Your task to perform on an android device: Open Yahoo.com Image 0: 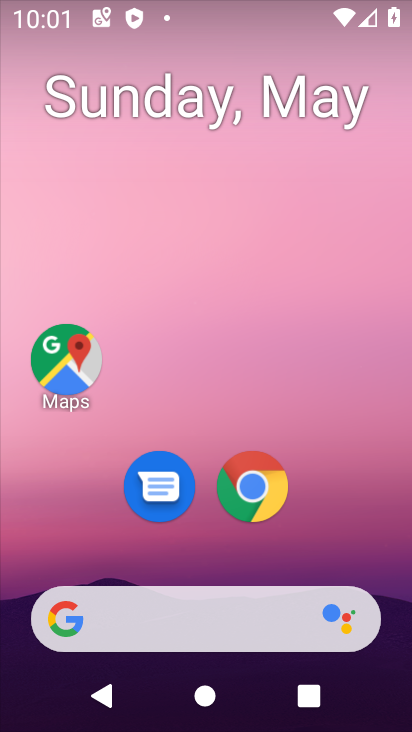
Step 0: click (251, 486)
Your task to perform on an android device: Open Yahoo.com Image 1: 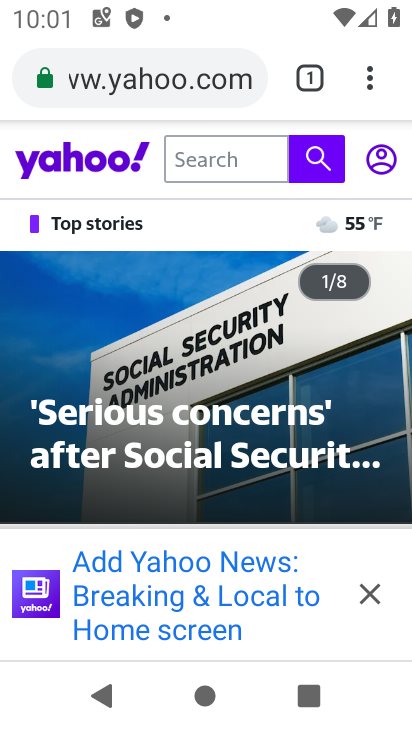
Step 1: click (220, 75)
Your task to perform on an android device: Open Yahoo.com Image 2: 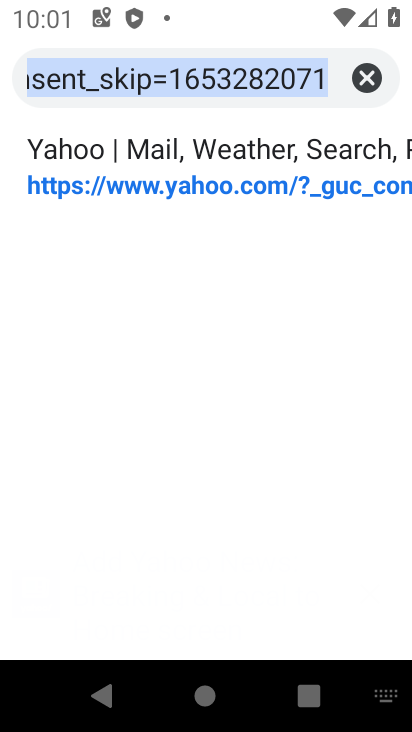
Step 2: click (374, 78)
Your task to perform on an android device: Open Yahoo.com Image 3: 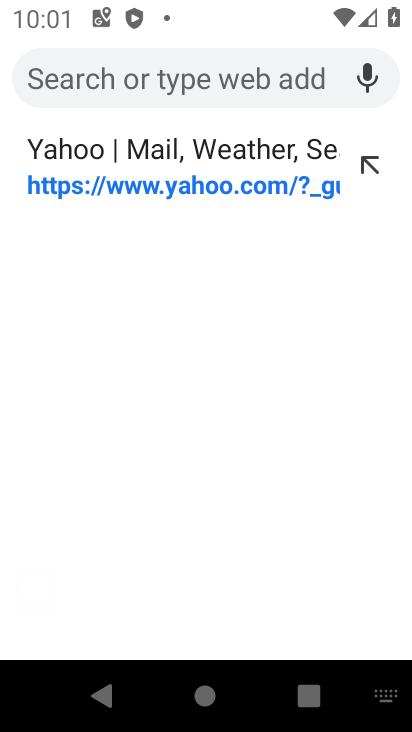
Step 3: type "Yahoo.com"
Your task to perform on an android device: Open Yahoo.com Image 4: 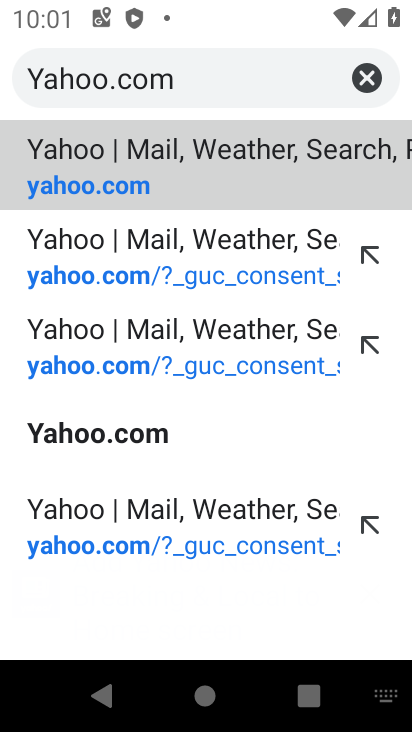
Step 4: click (144, 434)
Your task to perform on an android device: Open Yahoo.com Image 5: 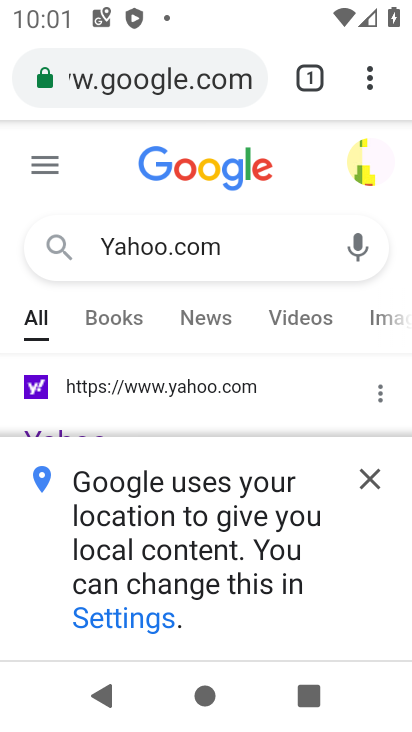
Step 5: click (369, 481)
Your task to perform on an android device: Open Yahoo.com Image 6: 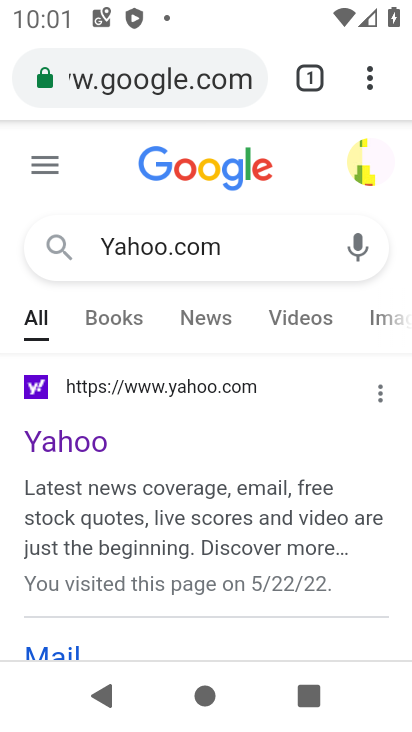
Step 6: click (76, 445)
Your task to perform on an android device: Open Yahoo.com Image 7: 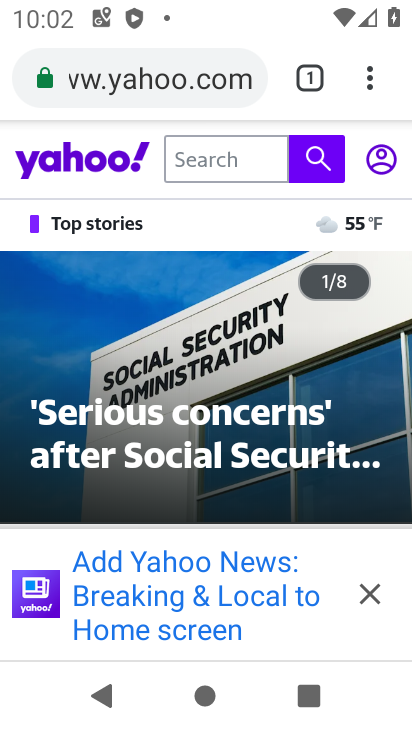
Step 7: task complete